Your task to perform on an android device: Show me recent news Image 0: 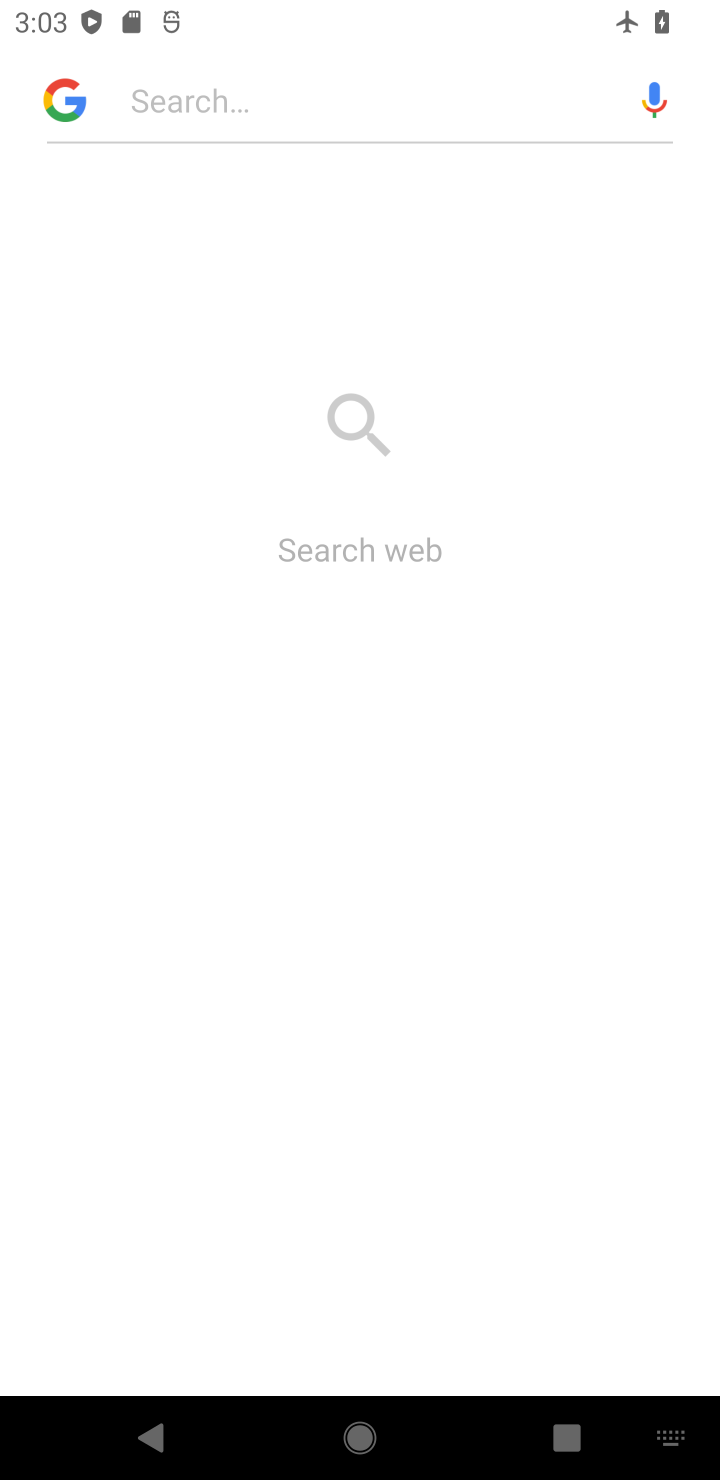
Step 0: press home button
Your task to perform on an android device: Show me recent news Image 1: 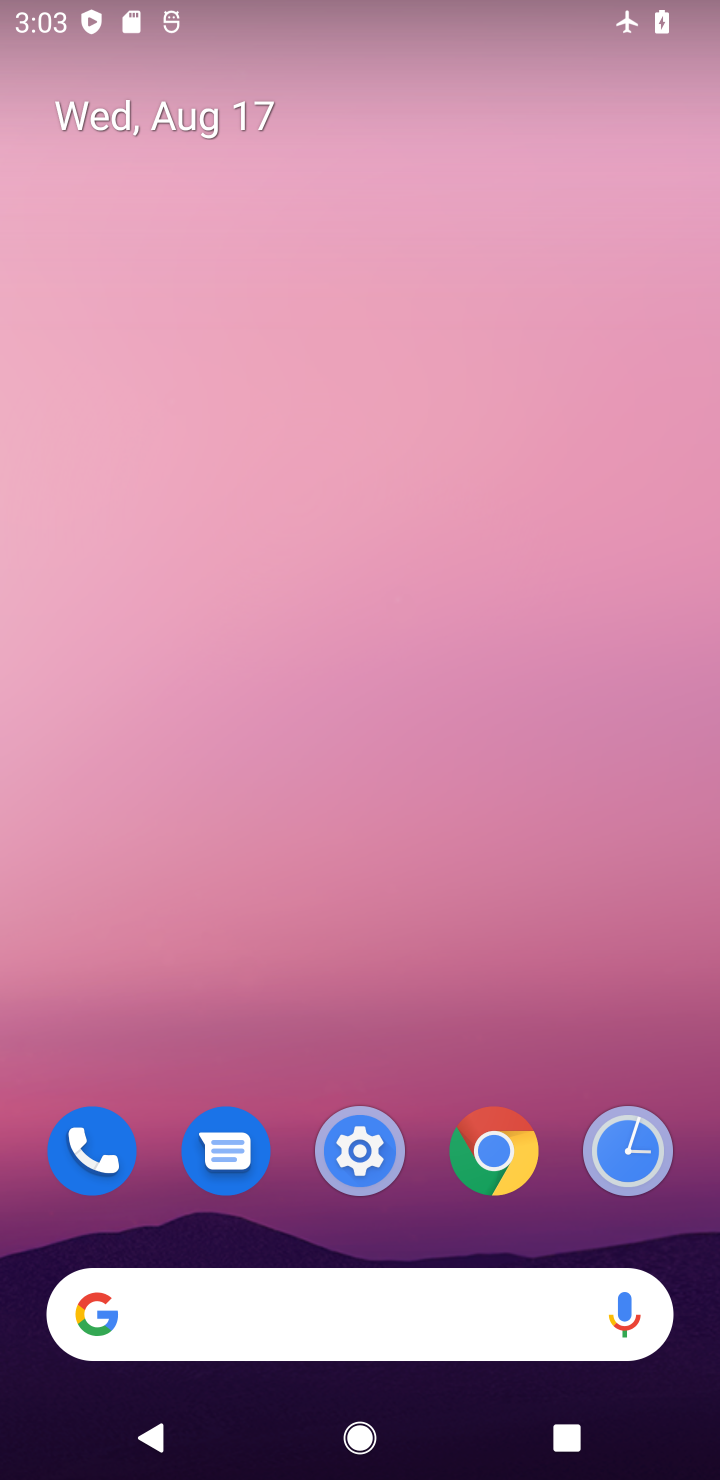
Step 1: click (473, 1178)
Your task to perform on an android device: Show me recent news Image 2: 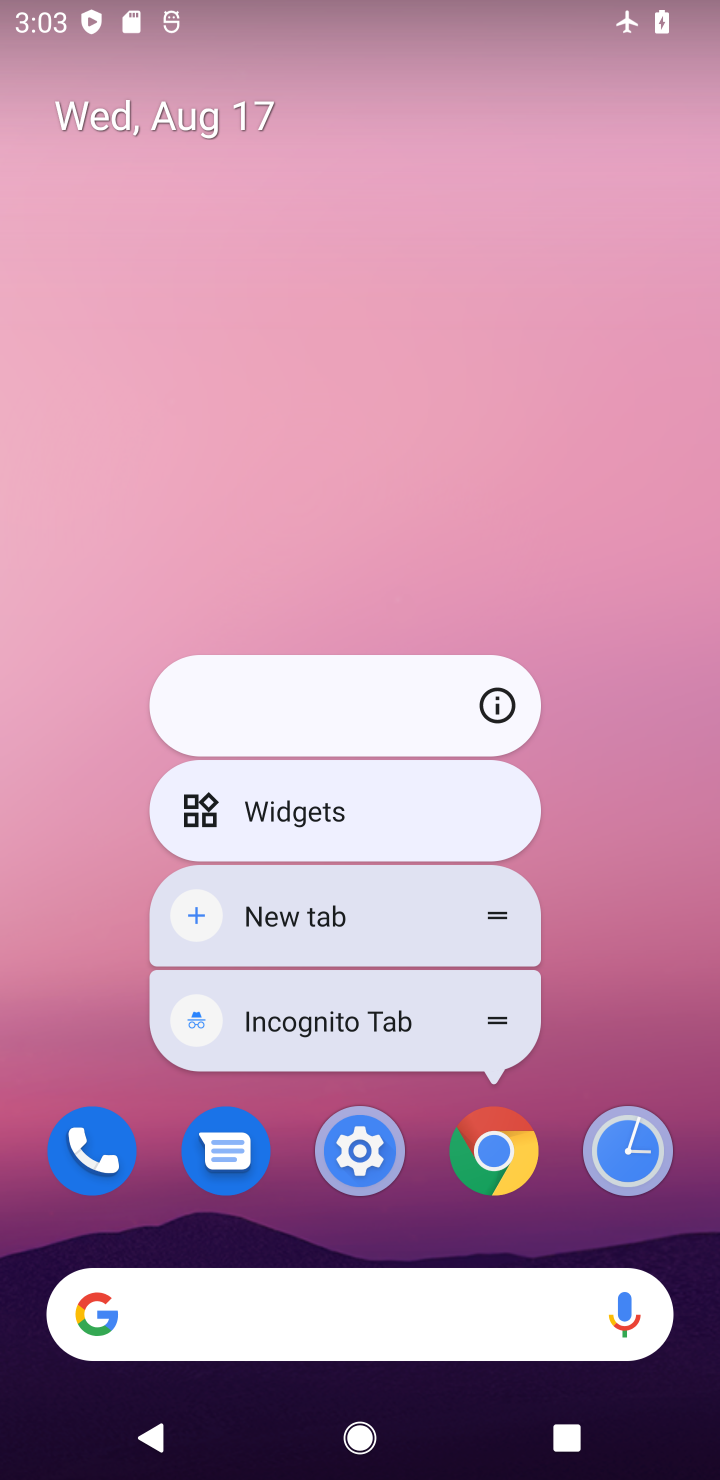
Step 2: click (508, 1152)
Your task to perform on an android device: Show me recent news Image 3: 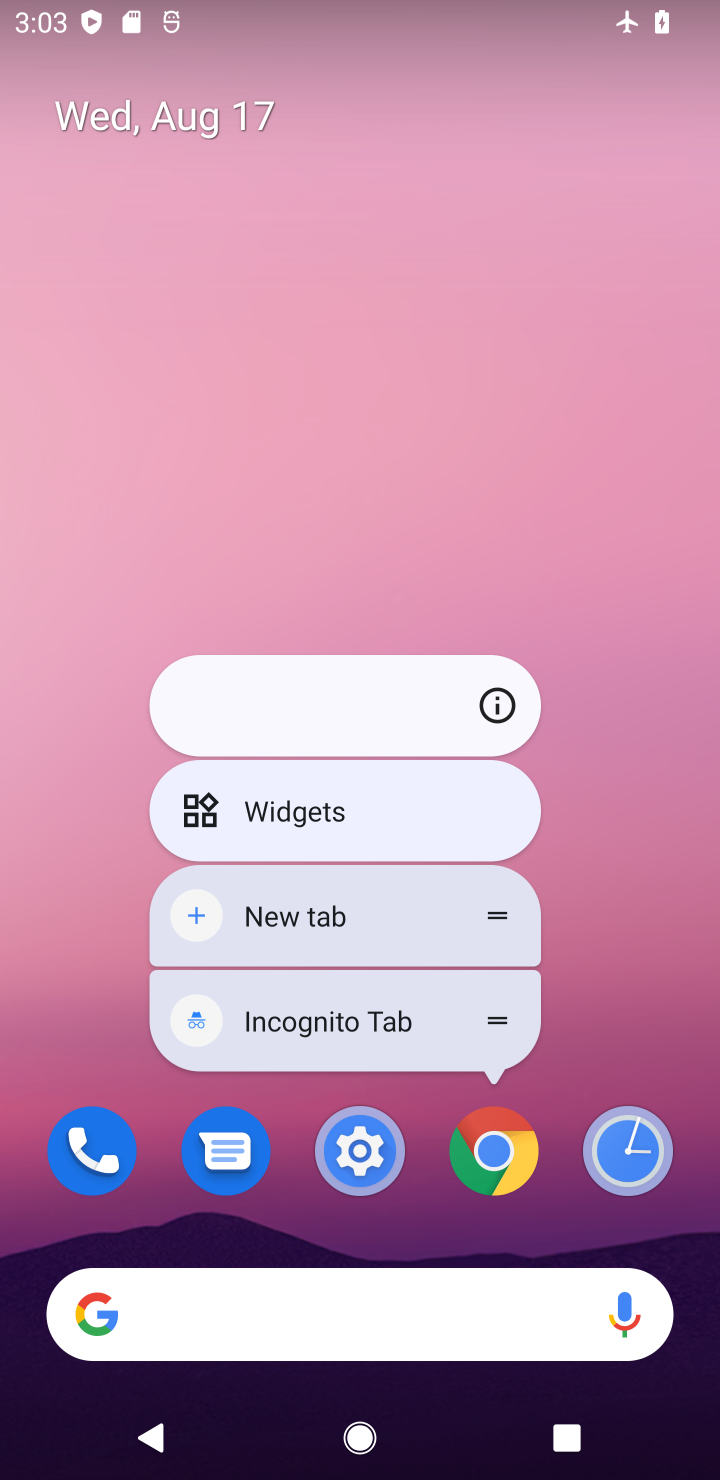
Step 3: click (508, 1182)
Your task to perform on an android device: Show me recent news Image 4: 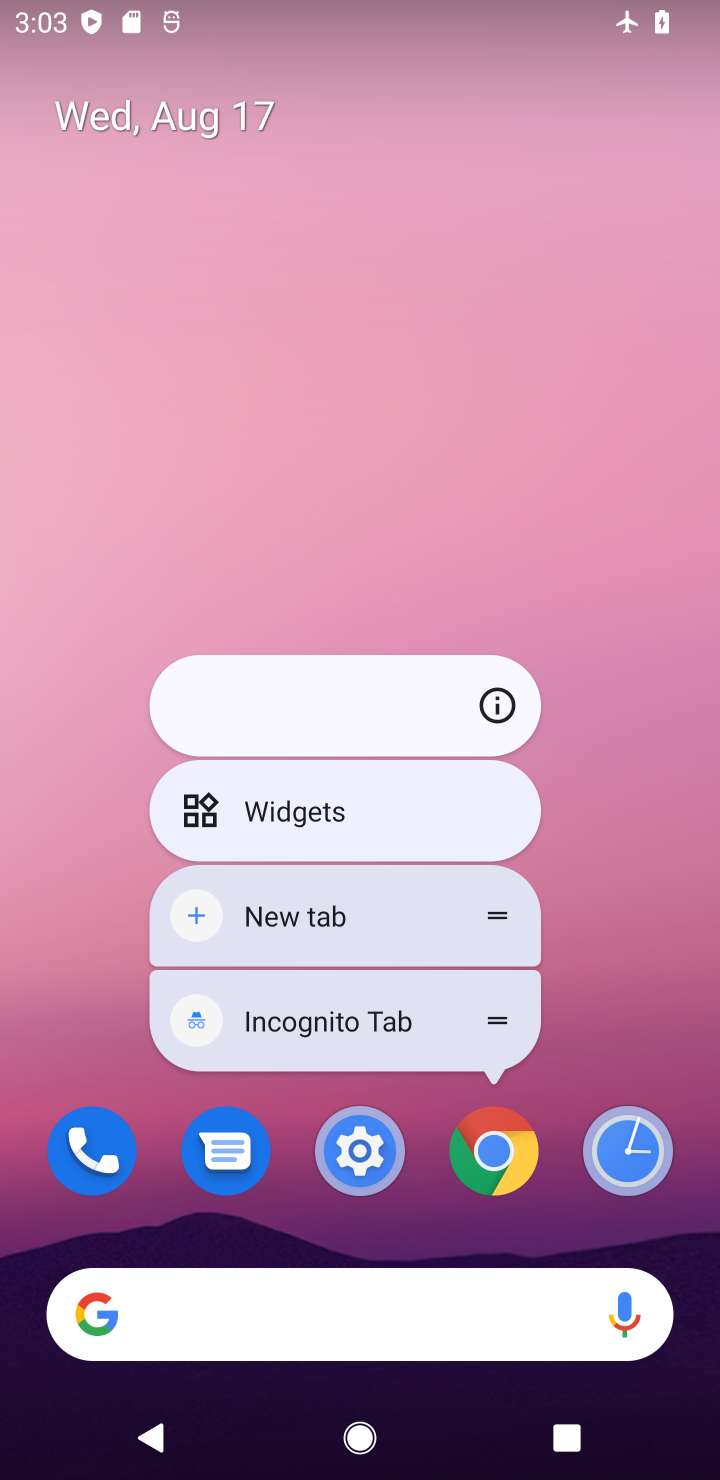
Step 4: click (508, 1182)
Your task to perform on an android device: Show me recent news Image 5: 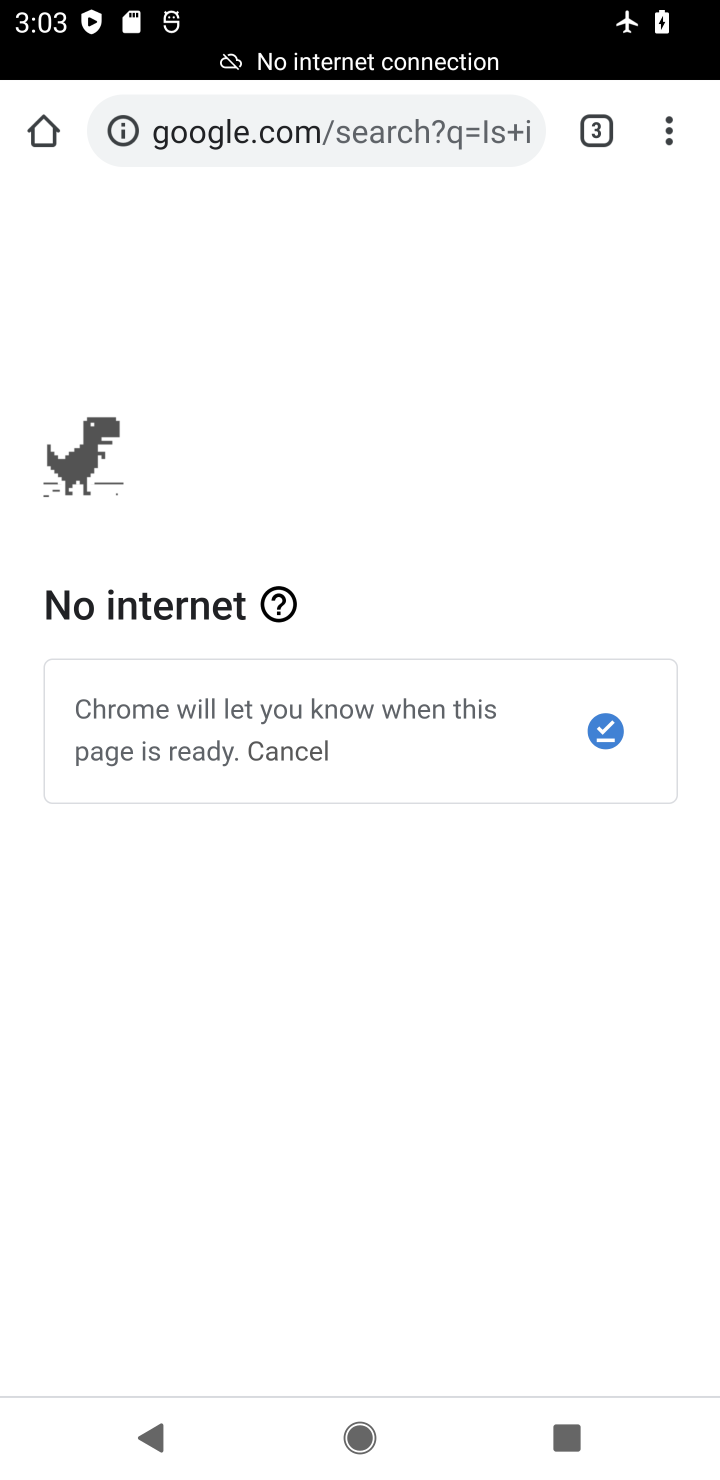
Step 5: click (667, 143)
Your task to perform on an android device: Show me recent news Image 6: 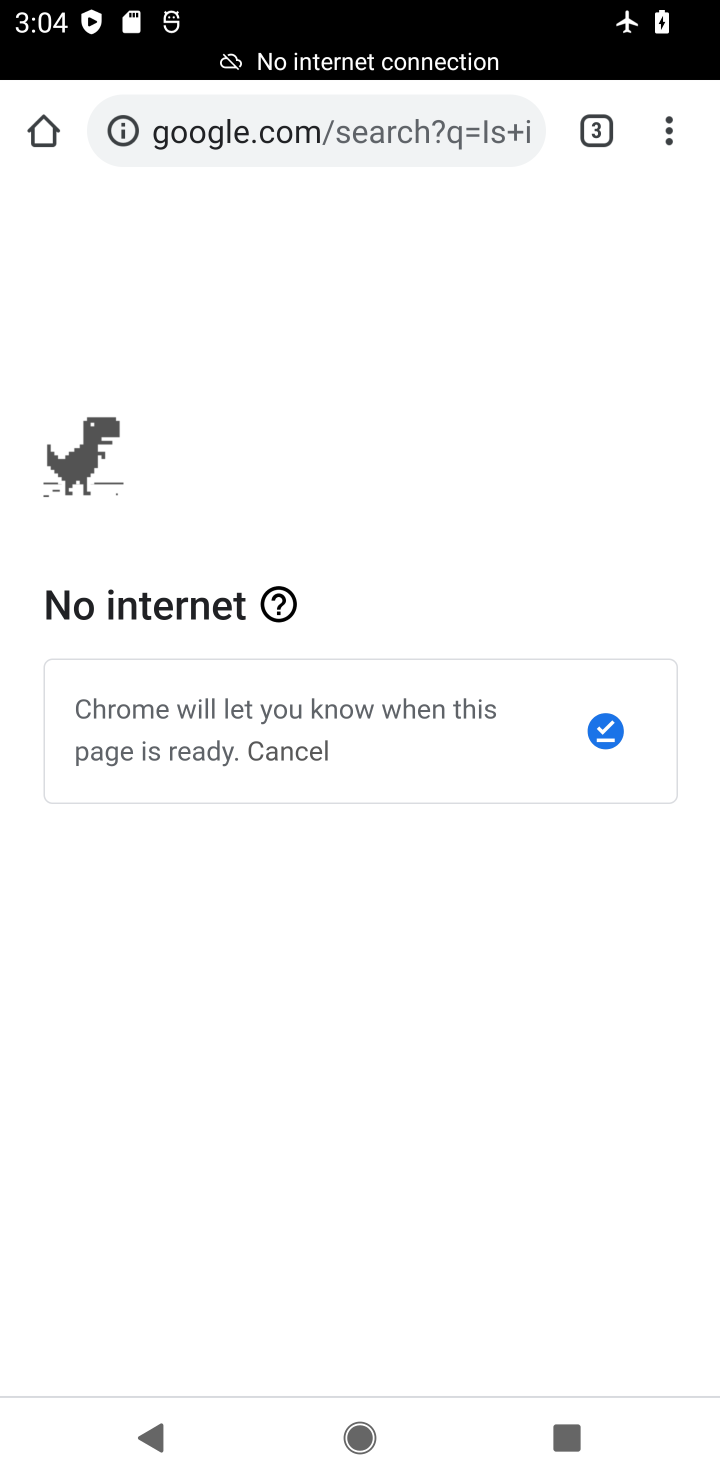
Step 6: click (664, 111)
Your task to perform on an android device: Show me recent news Image 7: 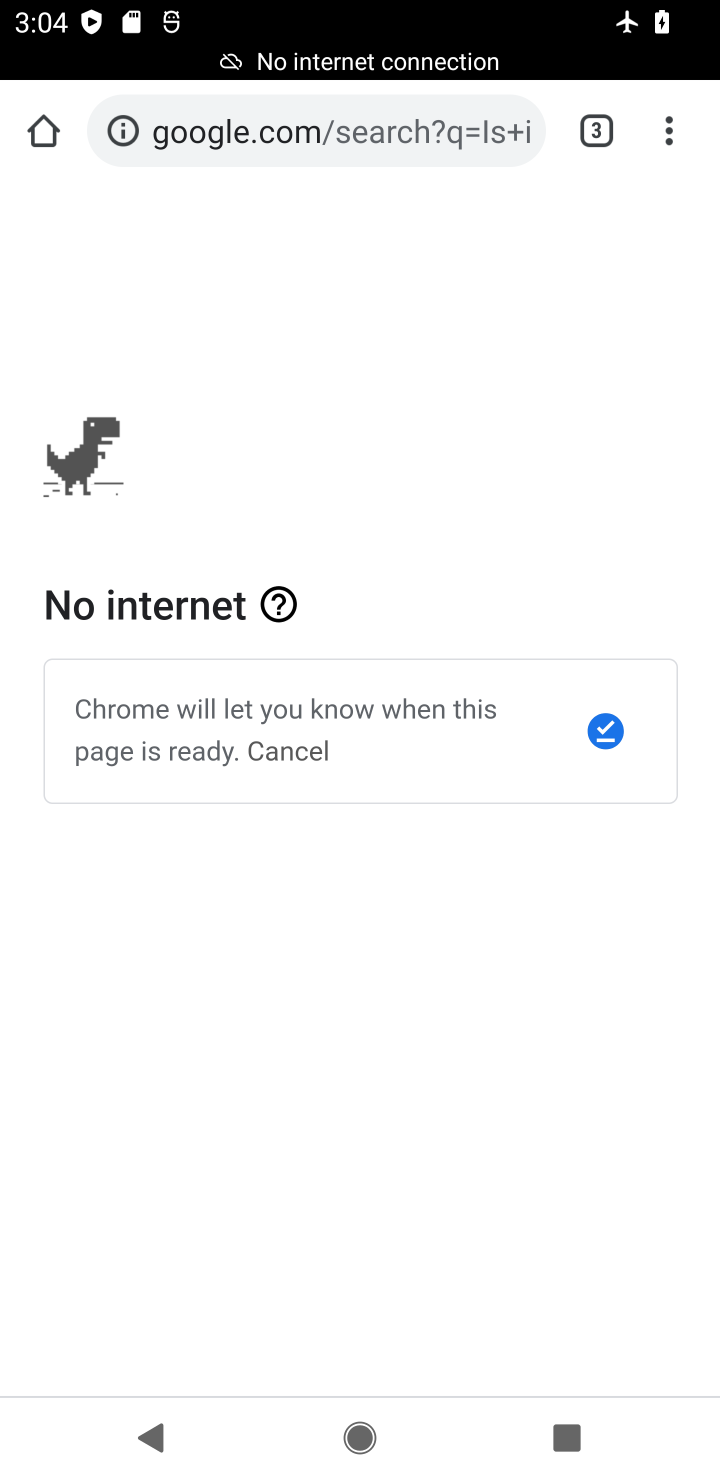
Step 7: click (610, 133)
Your task to perform on an android device: Show me recent news Image 8: 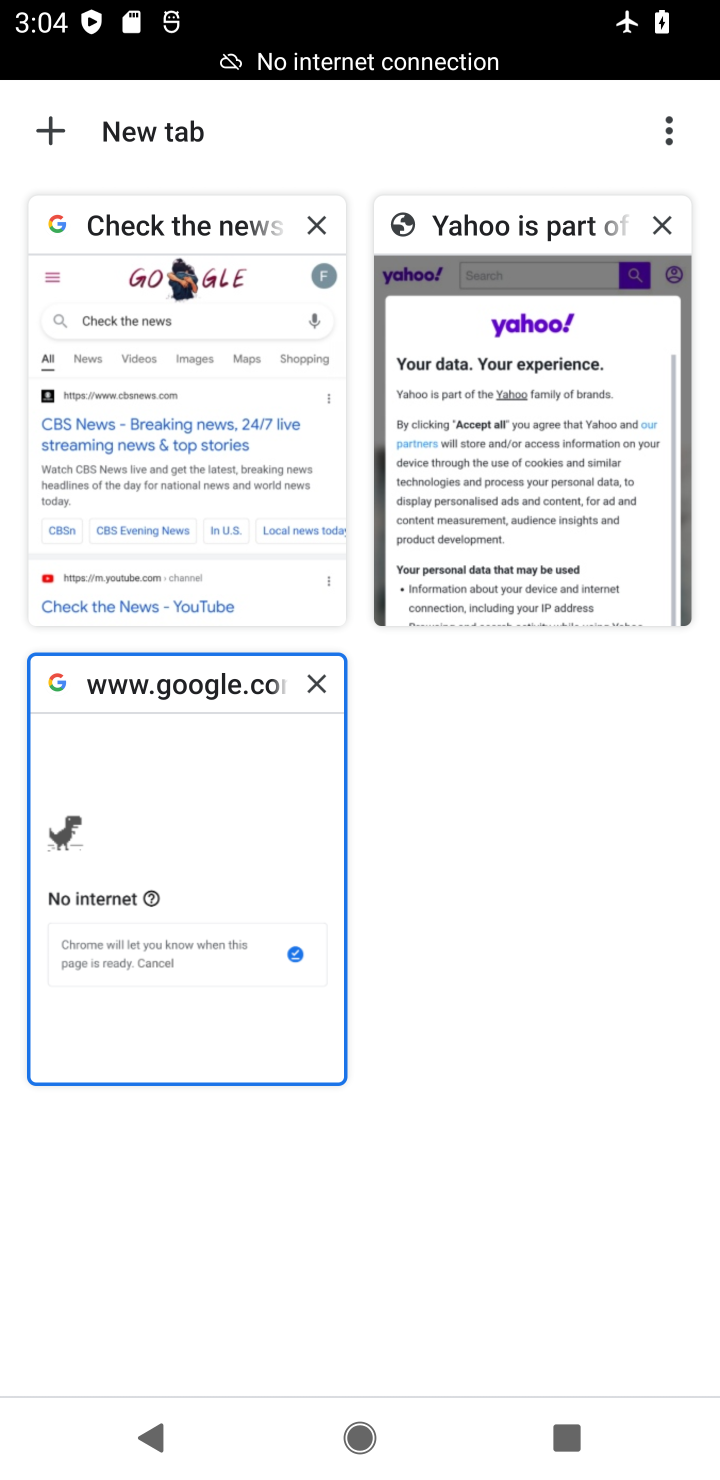
Step 8: click (53, 116)
Your task to perform on an android device: Show me recent news Image 9: 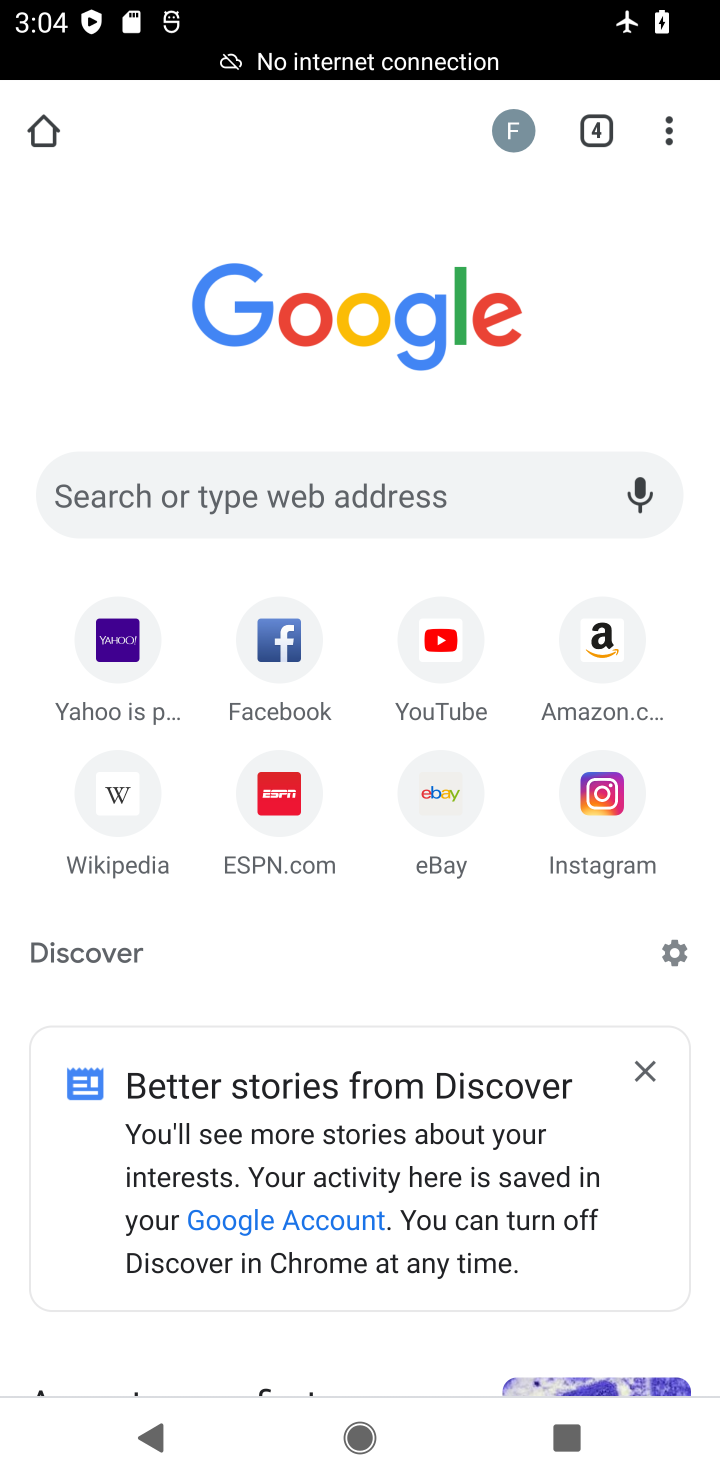
Step 9: click (394, 478)
Your task to perform on an android device: Show me recent news Image 10: 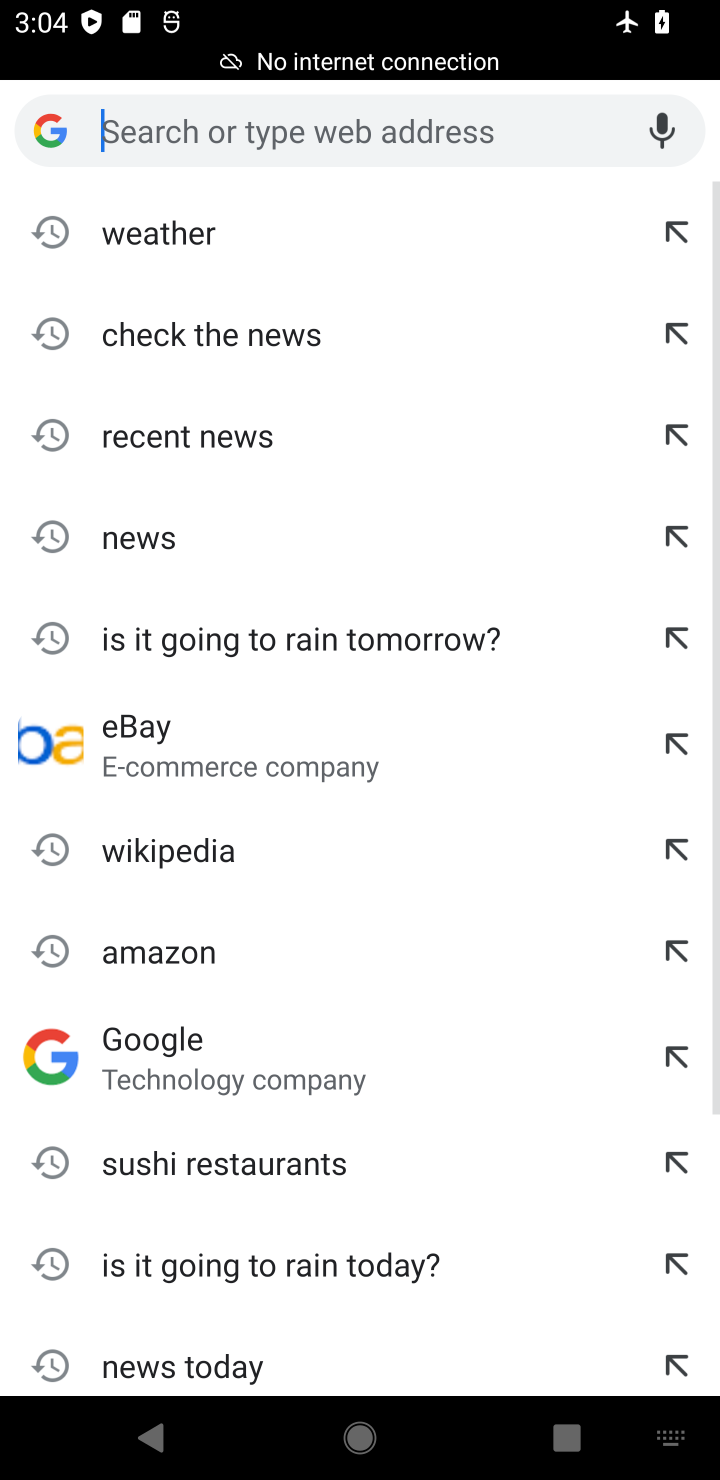
Step 10: type "Show me recent news "
Your task to perform on an android device: Show me recent news Image 11: 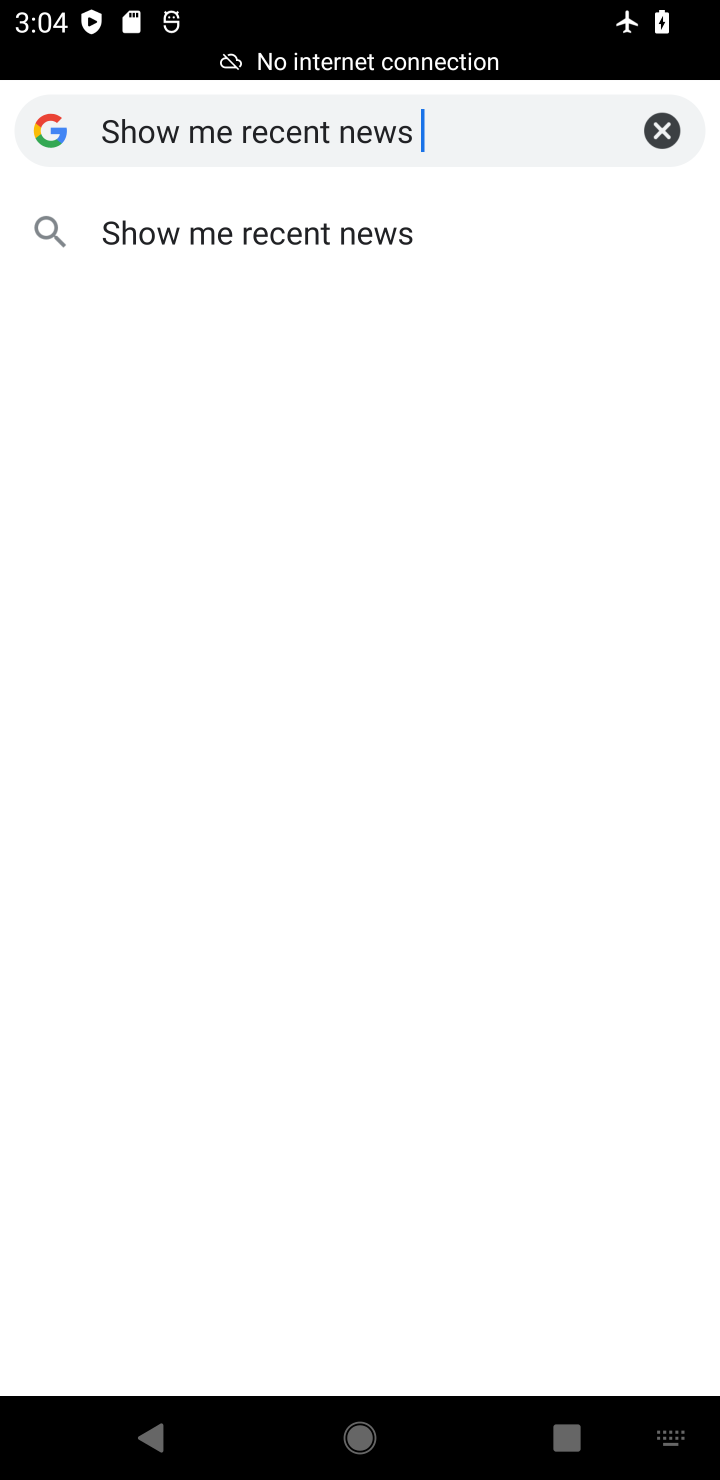
Step 11: click (207, 445)
Your task to perform on an android device: Show me recent news Image 12: 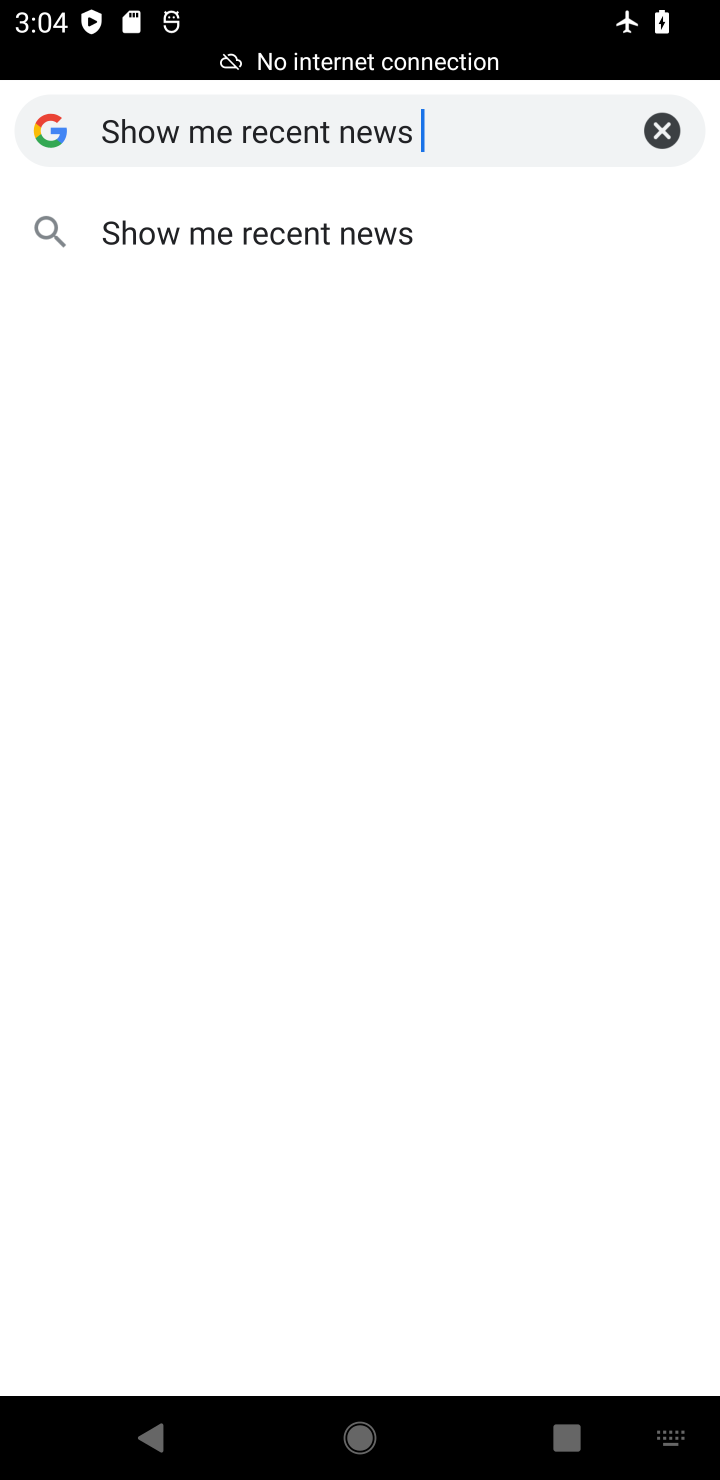
Step 12: click (271, 218)
Your task to perform on an android device: Show me recent news Image 13: 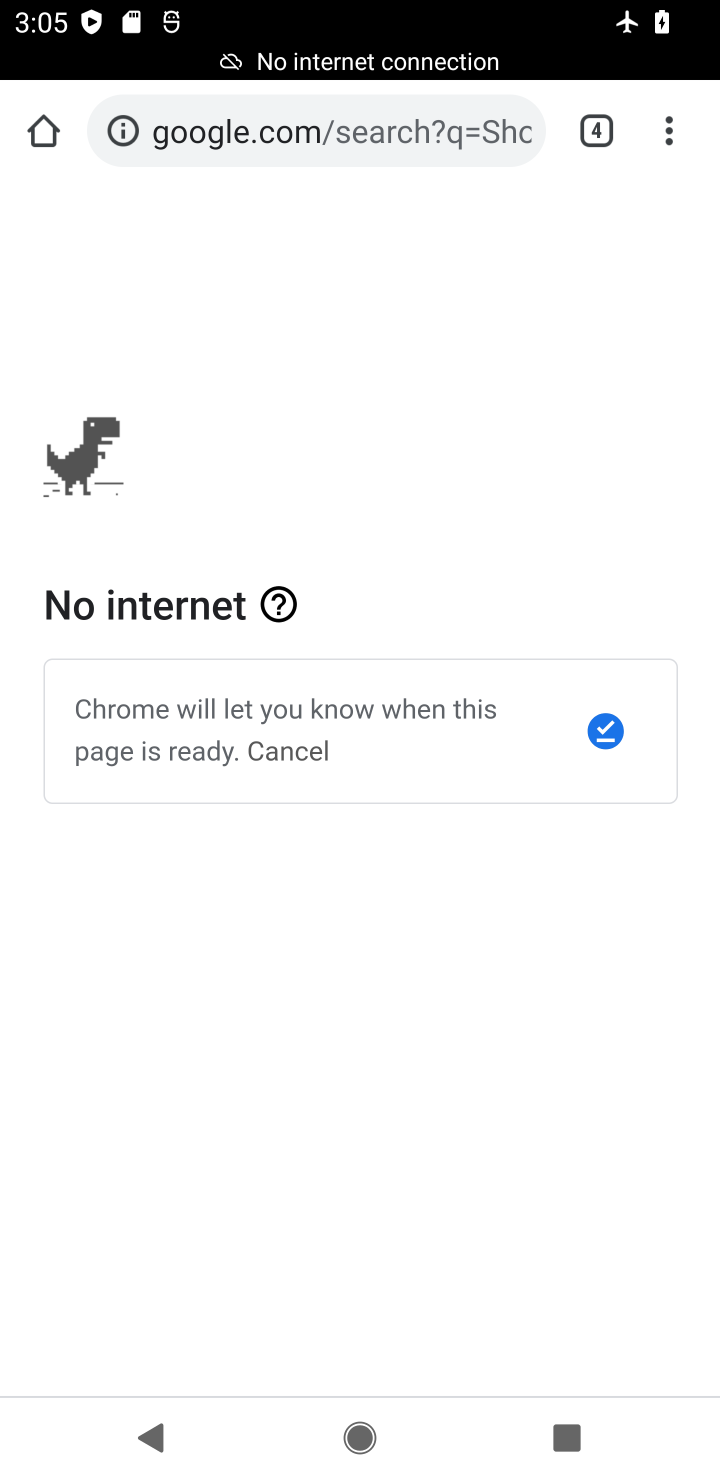
Step 13: task complete